Your task to perform on an android device: Go to ESPN.com Image 0: 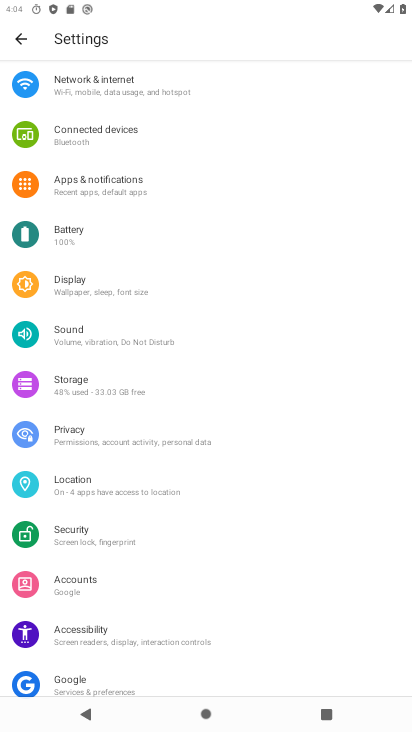
Step 0: press home button
Your task to perform on an android device: Go to ESPN.com Image 1: 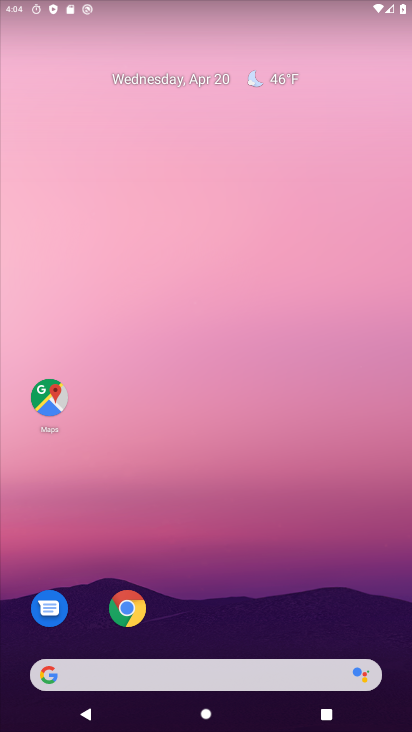
Step 1: click (147, 595)
Your task to perform on an android device: Go to ESPN.com Image 2: 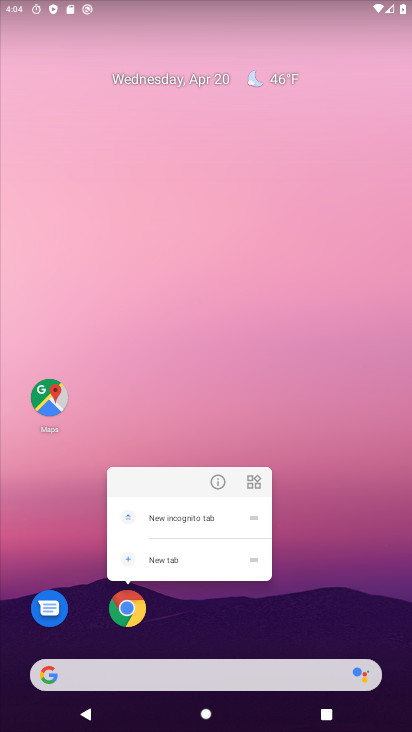
Step 2: click (139, 599)
Your task to perform on an android device: Go to ESPN.com Image 3: 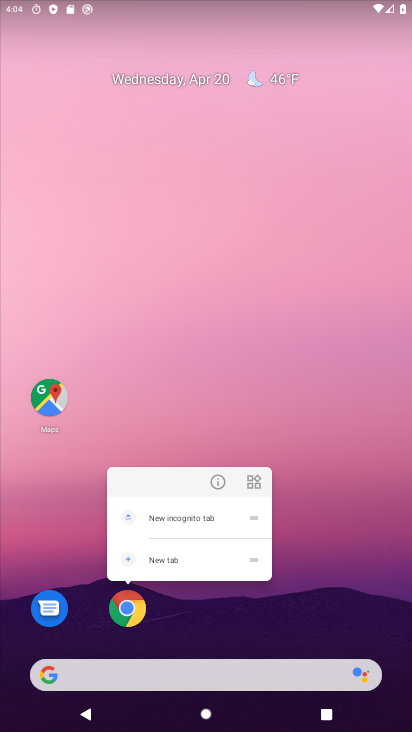
Step 3: click (123, 611)
Your task to perform on an android device: Go to ESPN.com Image 4: 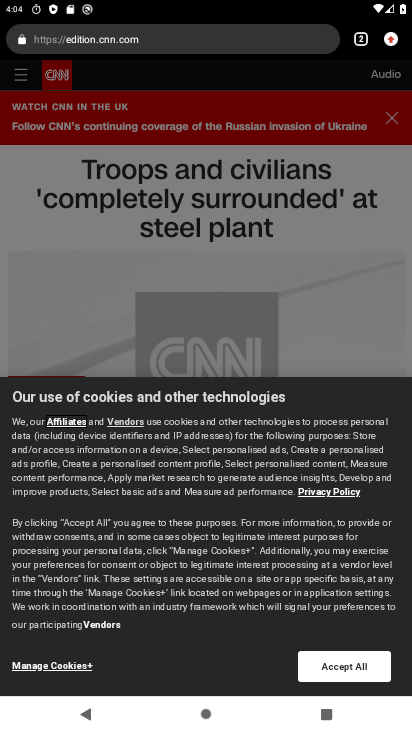
Step 4: click (257, 48)
Your task to perform on an android device: Go to ESPN.com Image 5: 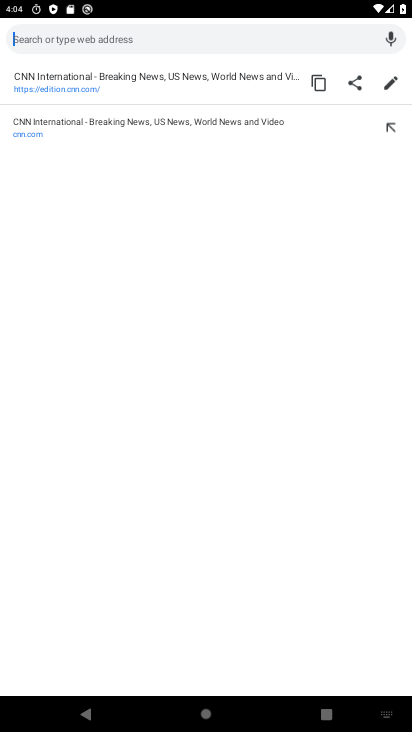
Step 5: click (177, 50)
Your task to perform on an android device: Go to ESPN.com Image 6: 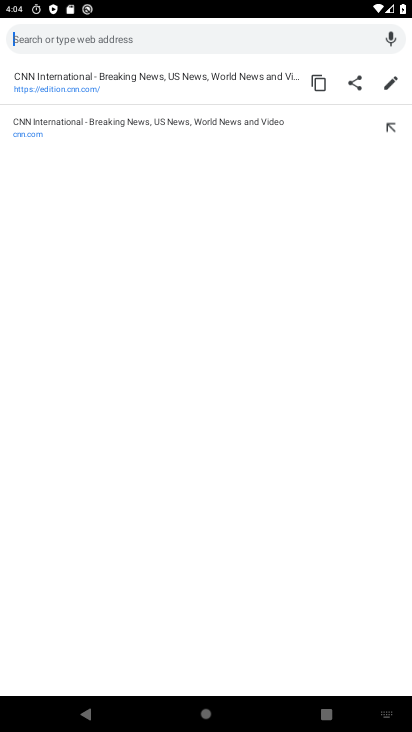
Step 6: type "espn.com"
Your task to perform on an android device: Go to ESPN.com Image 7: 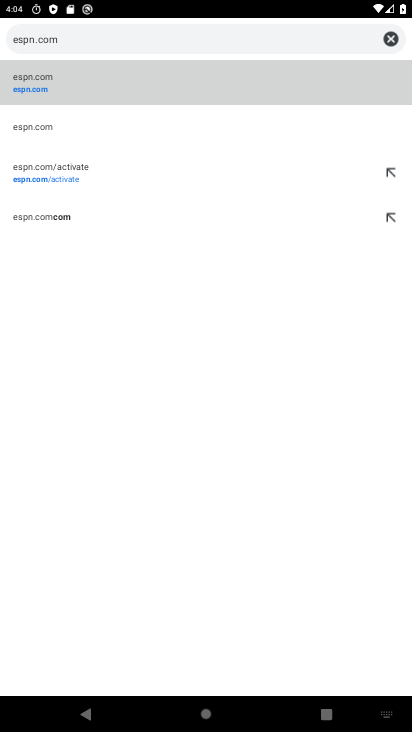
Step 7: click (65, 84)
Your task to perform on an android device: Go to ESPN.com Image 8: 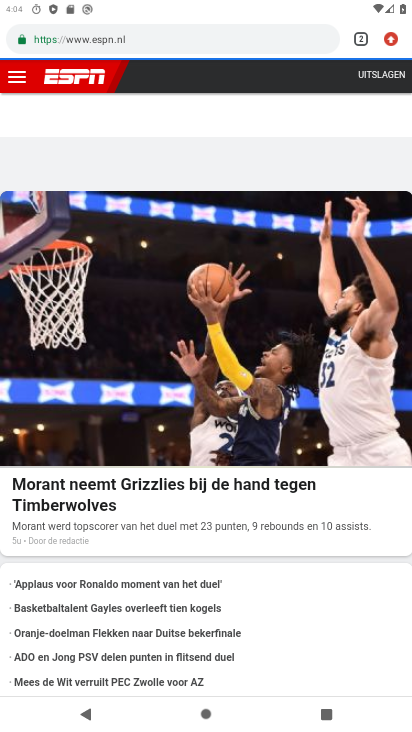
Step 8: task complete